Your task to perform on an android device: Go to location settings Image 0: 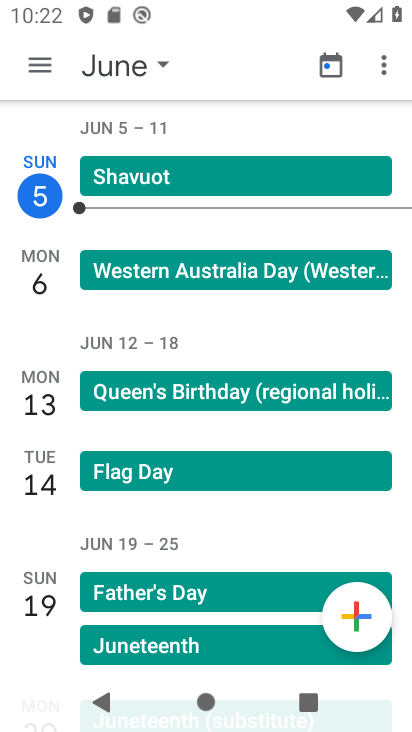
Step 0: press home button
Your task to perform on an android device: Go to location settings Image 1: 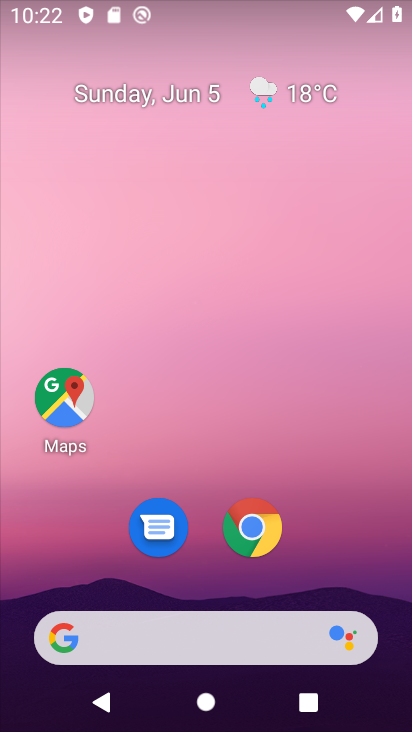
Step 1: drag from (305, 573) to (292, 12)
Your task to perform on an android device: Go to location settings Image 2: 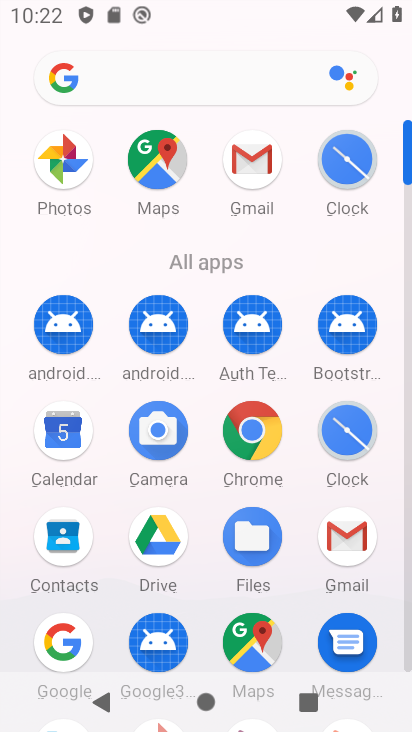
Step 2: click (409, 659)
Your task to perform on an android device: Go to location settings Image 3: 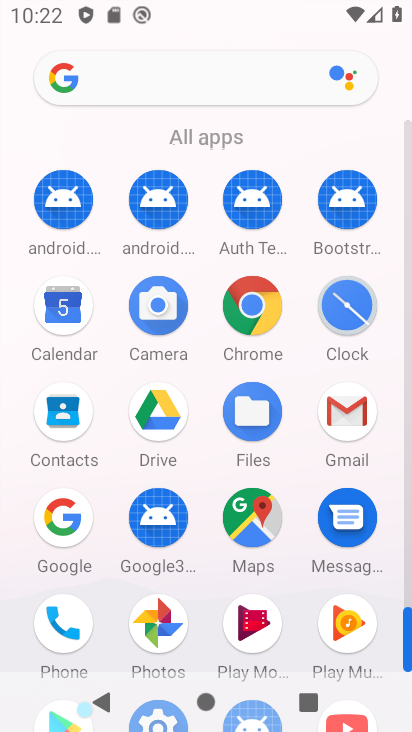
Step 3: drag from (398, 587) to (405, 434)
Your task to perform on an android device: Go to location settings Image 4: 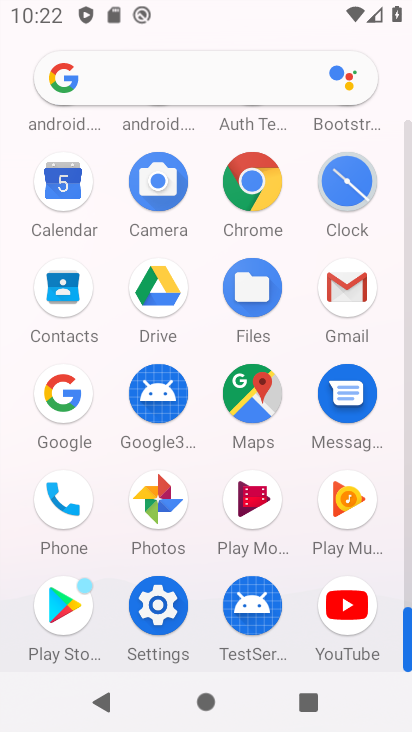
Step 4: click (155, 625)
Your task to perform on an android device: Go to location settings Image 5: 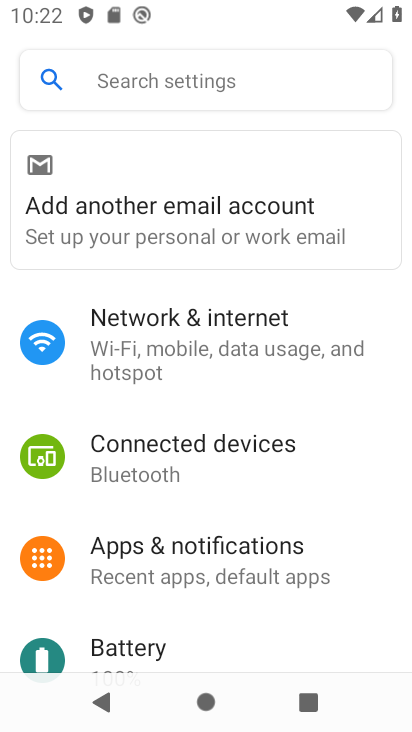
Step 5: drag from (277, 634) to (260, 211)
Your task to perform on an android device: Go to location settings Image 6: 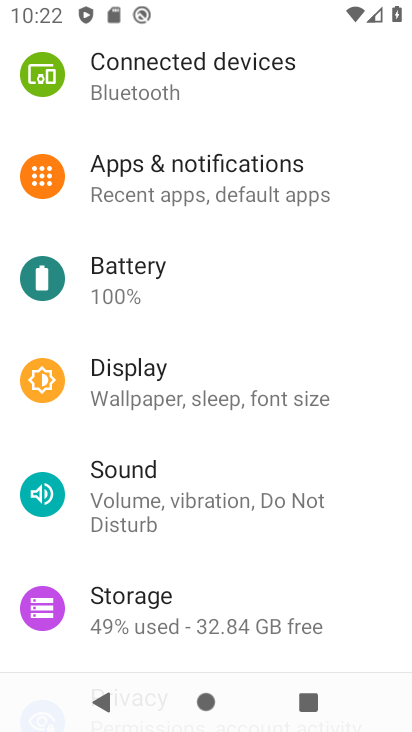
Step 6: drag from (277, 590) to (275, 169)
Your task to perform on an android device: Go to location settings Image 7: 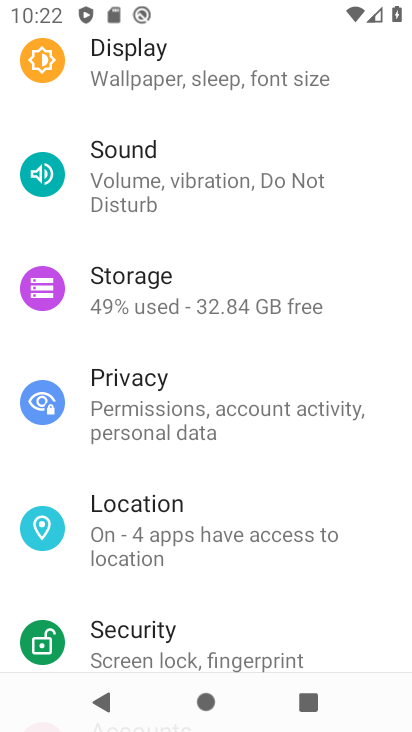
Step 7: click (252, 532)
Your task to perform on an android device: Go to location settings Image 8: 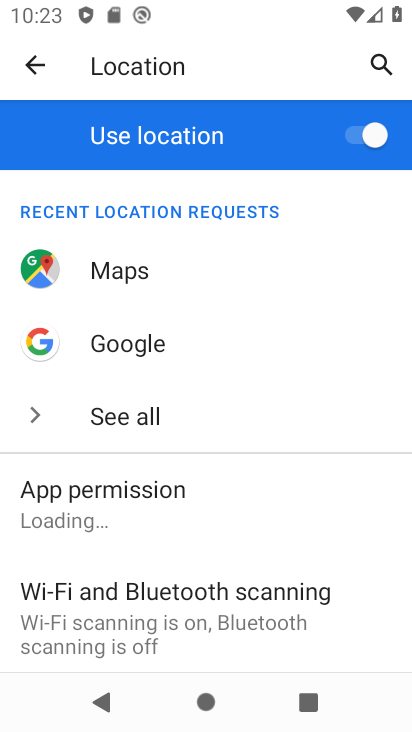
Step 8: task complete